Your task to perform on an android device: change timer sound Image 0: 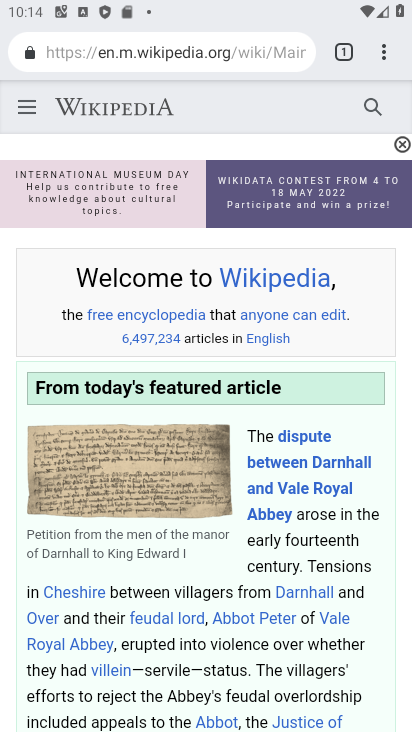
Step 0: press home button
Your task to perform on an android device: change timer sound Image 1: 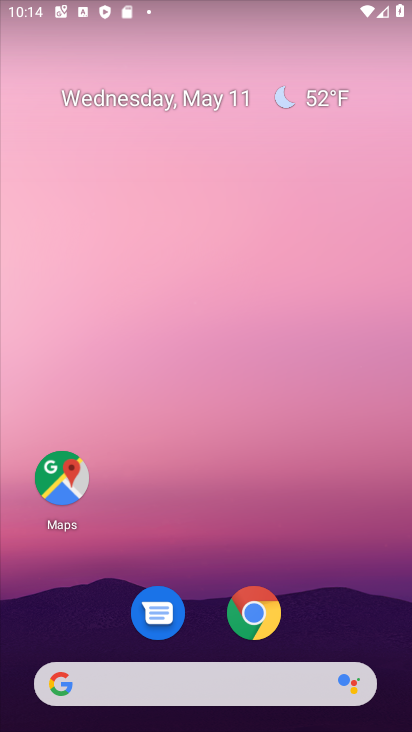
Step 1: drag from (229, 256) to (229, 219)
Your task to perform on an android device: change timer sound Image 2: 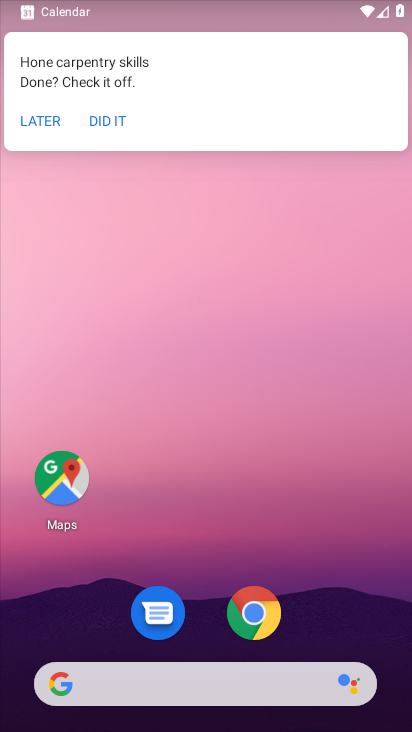
Step 2: drag from (219, 490) to (203, 178)
Your task to perform on an android device: change timer sound Image 3: 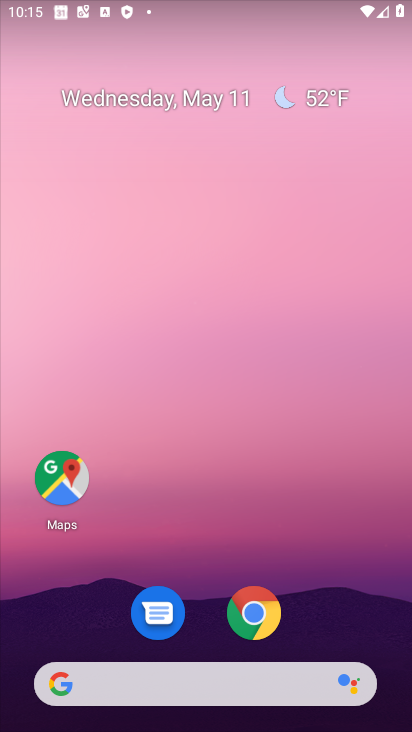
Step 3: drag from (222, 549) to (209, 98)
Your task to perform on an android device: change timer sound Image 4: 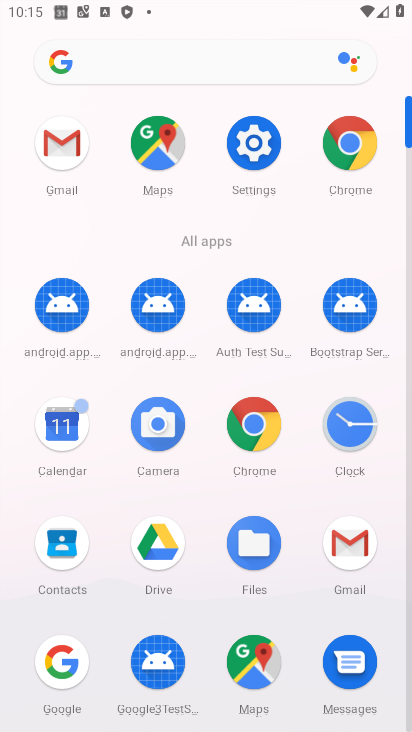
Step 4: click (350, 441)
Your task to perform on an android device: change timer sound Image 5: 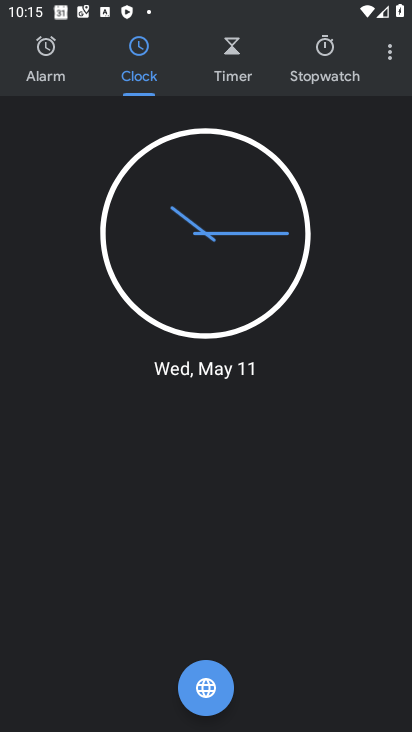
Step 5: click (389, 57)
Your task to perform on an android device: change timer sound Image 6: 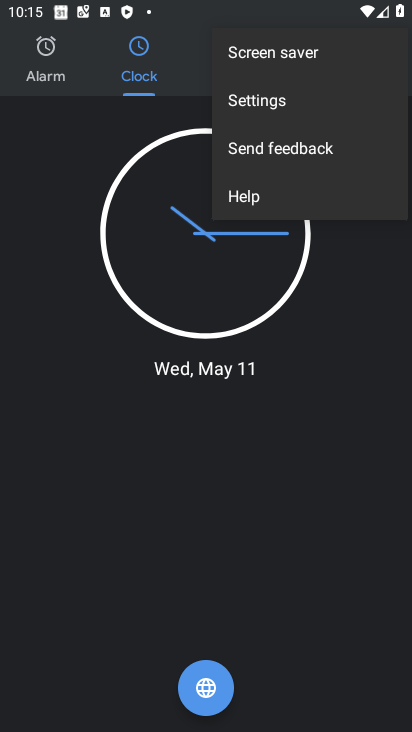
Step 6: click (314, 105)
Your task to perform on an android device: change timer sound Image 7: 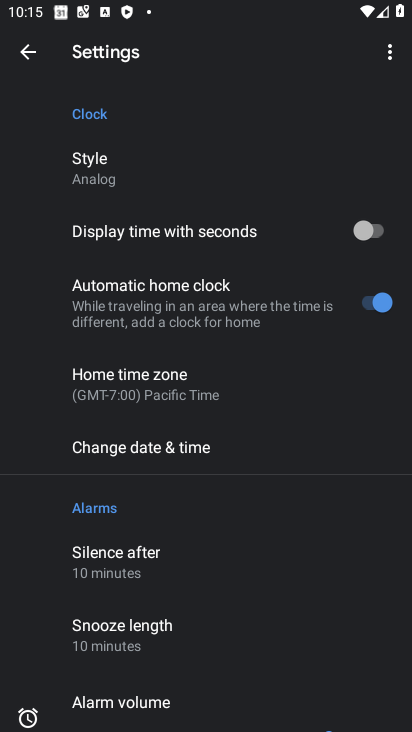
Step 7: drag from (199, 635) to (216, 381)
Your task to perform on an android device: change timer sound Image 8: 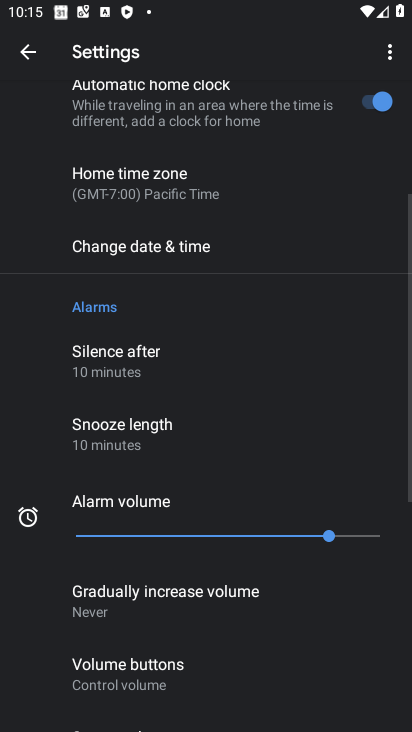
Step 8: drag from (190, 647) to (199, 275)
Your task to perform on an android device: change timer sound Image 9: 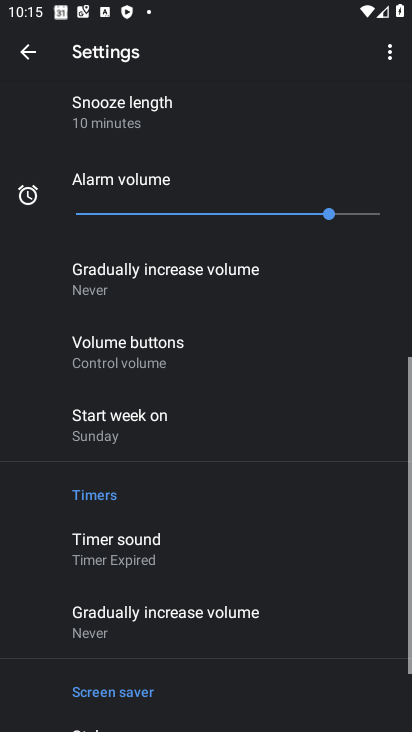
Step 9: click (180, 571)
Your task to perform on an android device: change timer sound Image 10: 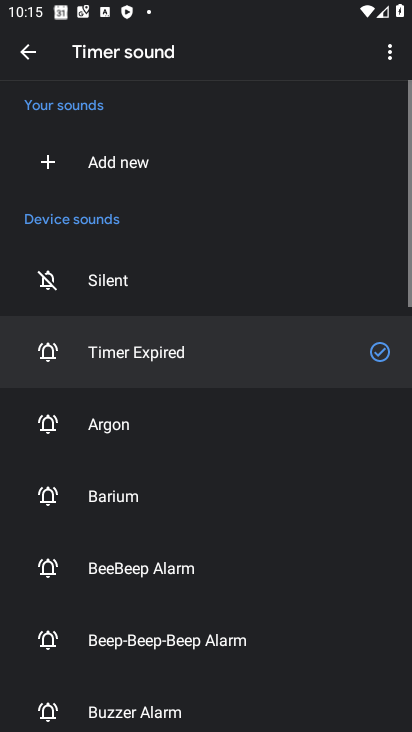
Step 10: click (176, 450)
Your task to perform on an android device: change timer sound Image 11: 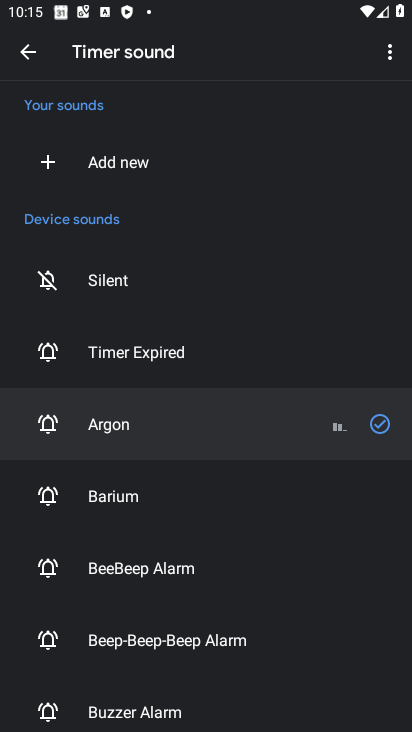
Step 11: task complete